Your task to perform on an android device: search for starred emails in the gmail app Image 0: 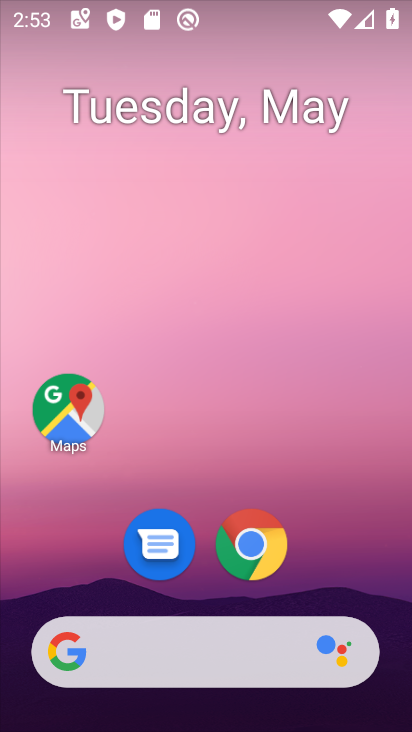
Step 0: drag from (346, 573) to (268, 121)
Your task to perform on an android device: search for starred emails in the gmail app Image 1: 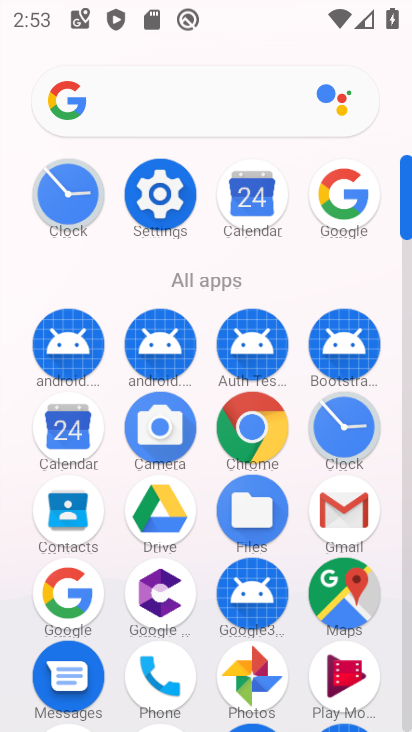
Step 1: click (348, 510)
Your task to perform on an android device: search for starred emails in the gmail app Image 2: 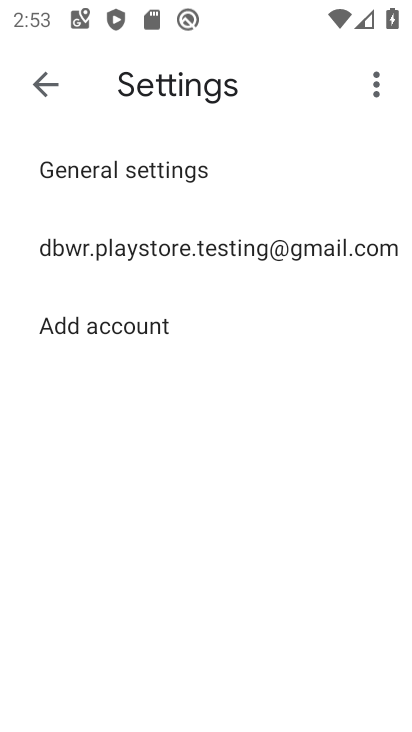
Step 2: click (190, 244)
Your task to perform on an android device: search for starred emails in the gmail app Image 3: 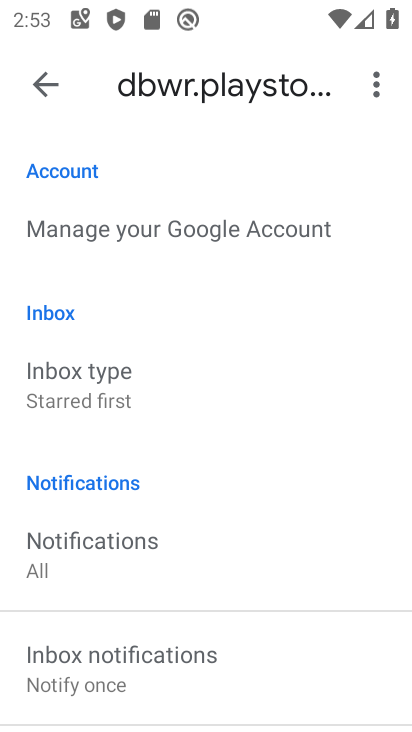
Step 3: click (47, 96)
Your task to perform on an android device: search for starred emails in the gmail app Image 4: 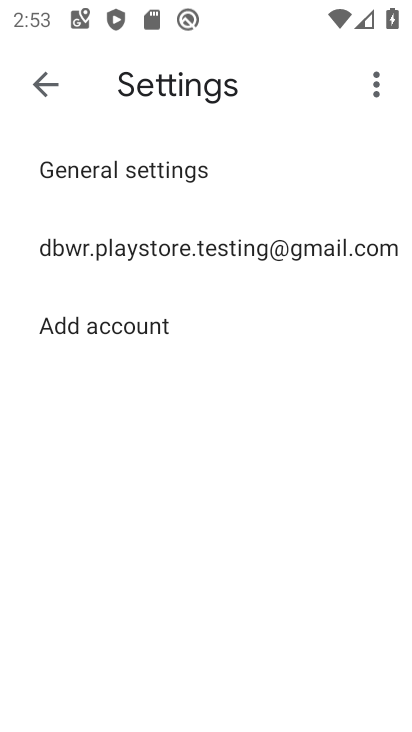
Step 4: click (47, 96)
Your task to perform on an android device: search for starred emails in the gmail app Image 5: 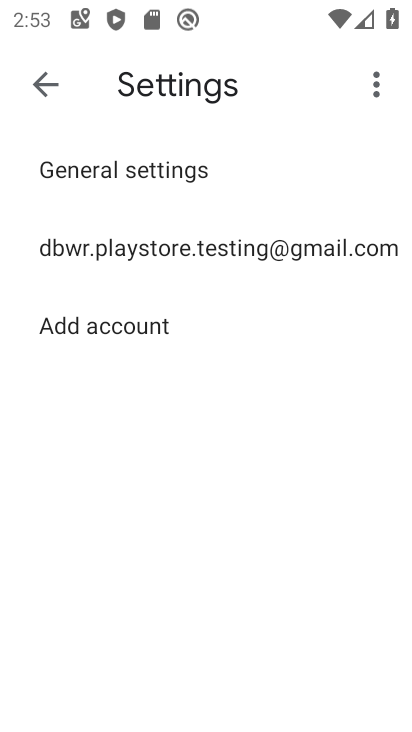
Step 5: click (38, 82)
Your task to perform on an android device: search for starred emails in the gmail app Image 6: 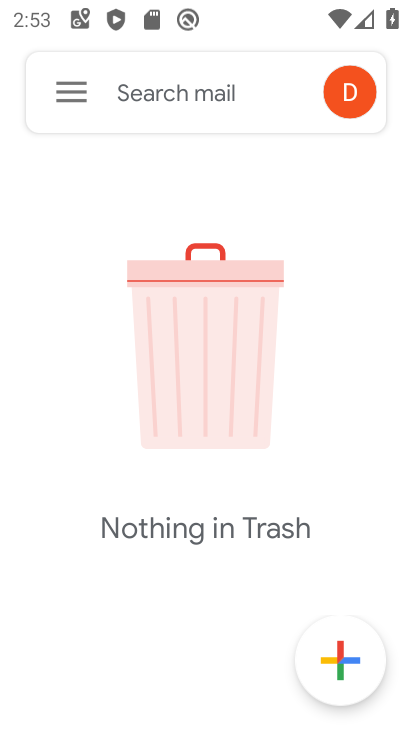
Step 6: click (62, 94)
Your task to perform on an android device: search for starred emails in the gmail app Image 7: 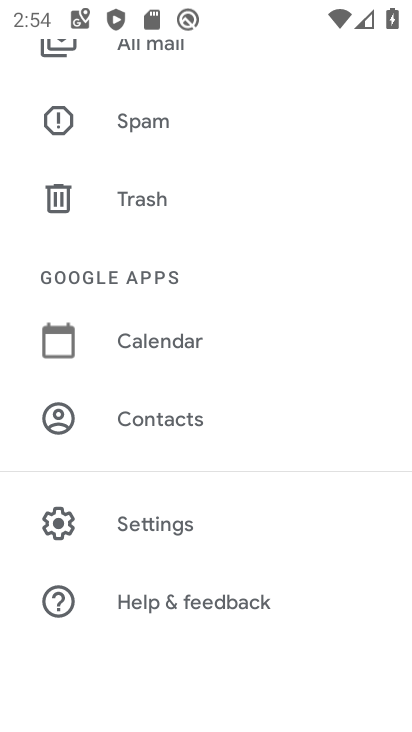
Step 7: drag from (167, 247) to (115, 412)
Your task to perform on an android device: search for starred emails in the gmail app Image 8: 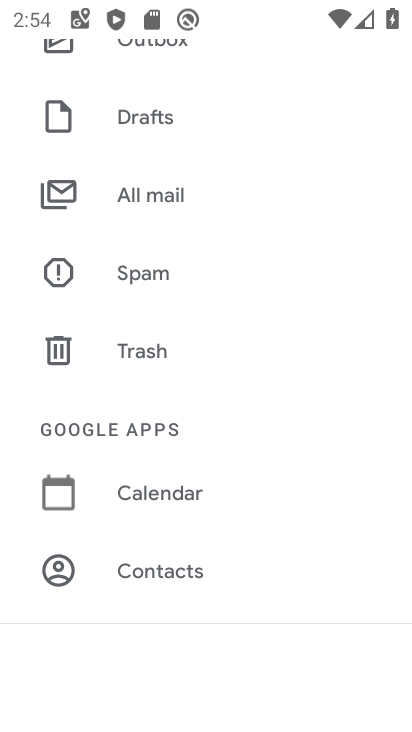
Step 8: drag from (193, 159) to (143, 291)
Your task to perform on an android device: search for starred emails in the gmail app Image 9: 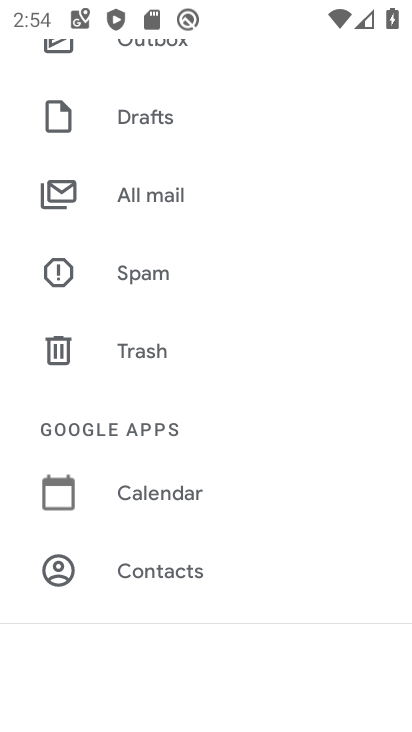
Step 9: drag from (149, 167) to (195, 334)
Your task to perform on an android device: search for starred emails in the gmail app Image 10: 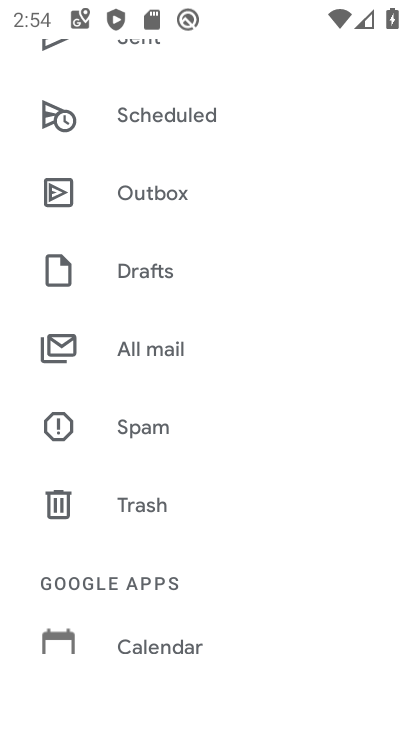
Step 10: drag from (158, 159) to (184, 286)
Your task to perform on an android device: search for starred emails in the gmail app Image 11: 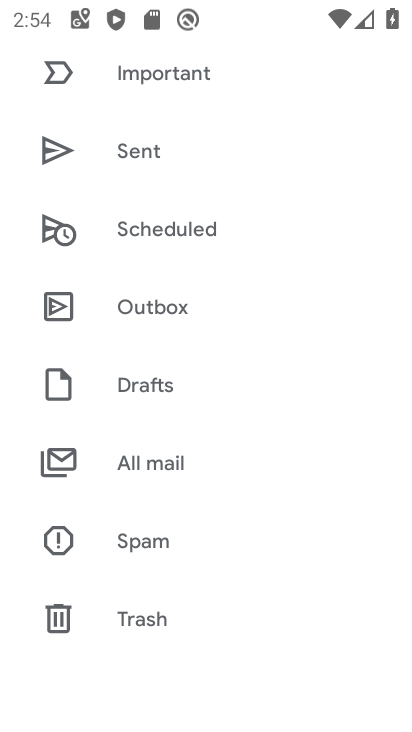
Step 11: drag from (188, 178) to (214, 309)
Your task to perform on an android device: search for starred emails in the gmail app Image 12: 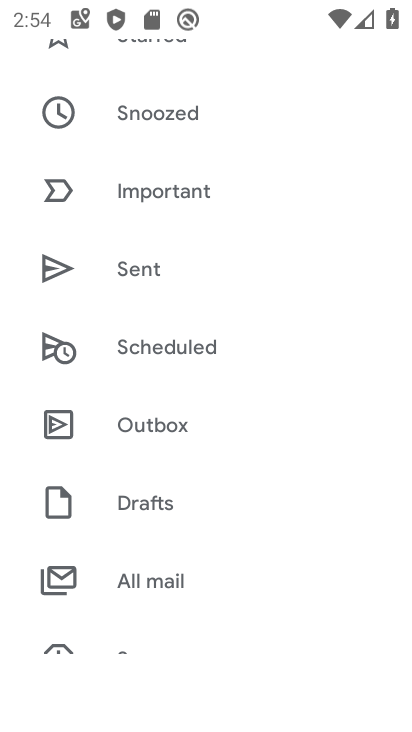
Step 12: drag from (181, 145) to (187, 283)
Your task to perform on an android device: search for starred emails in the gmail app Image 13: 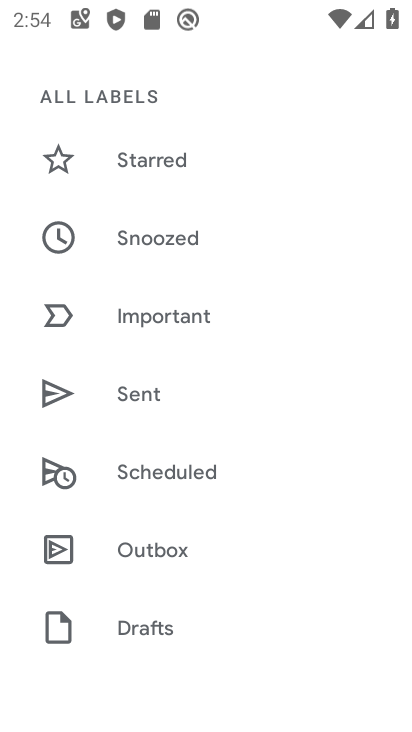
Step 13: click (161, 165)
Your task to perform on an android device: search for starred emails in the gmail app Image 14: 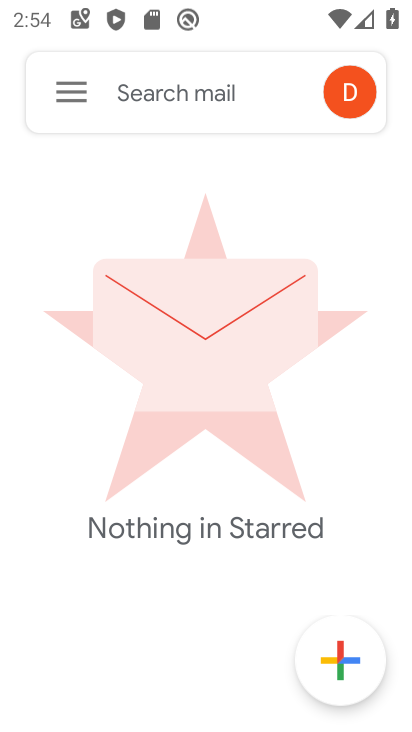
Step 14: click (84, 104)
Your task to perform on an android device: search for starred emails in the gmail app Image 15: 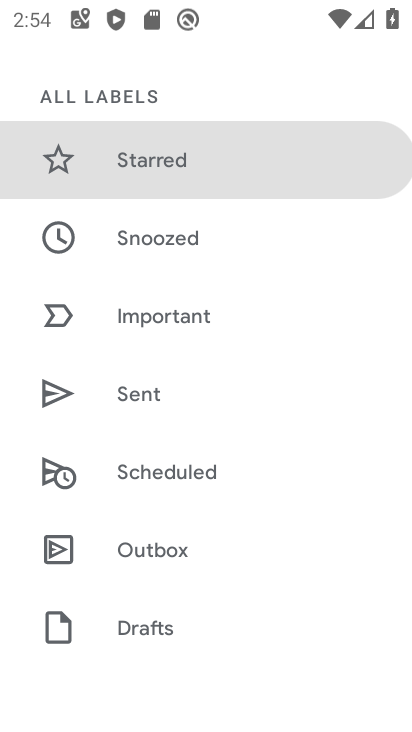
Step 15: drag from (221, 508) to (267, 421)
Your task to perform on an android device: search for starred emails in the gmail app Image 16: 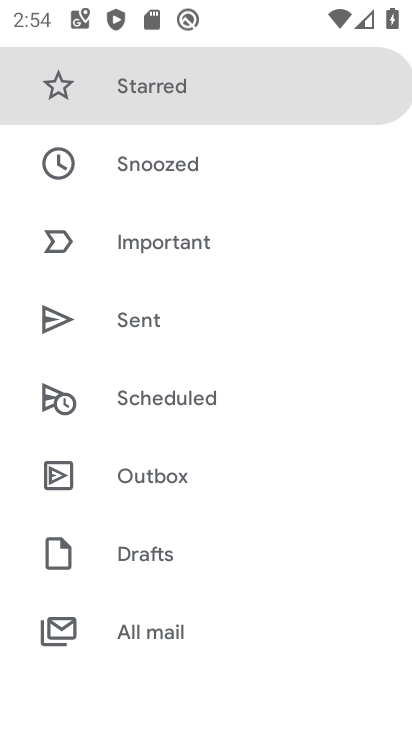
Step 16: drag from (226, 547) to (248, 501)
Your task to perform on an android device: search for starred emails in the gmail app Image 17: 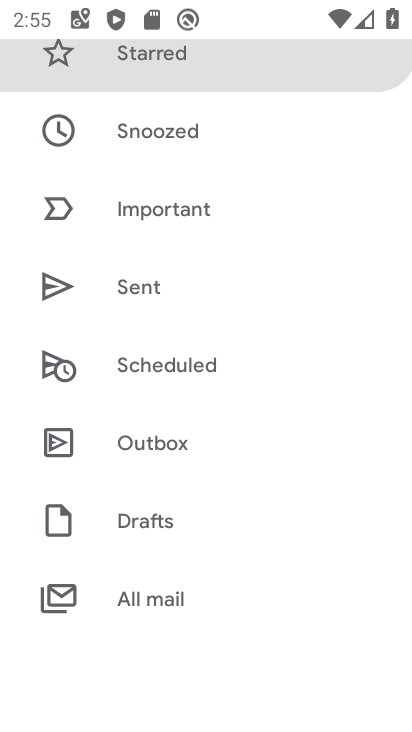
Step 17: click (117, 614)
Your task to perform on an android device: search for starred emails in the gmail app Image 18: 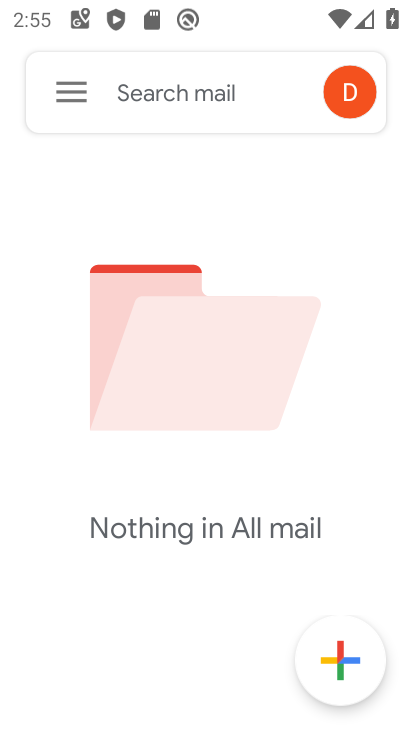
Step 18: task complete